Your task to perform on an android device: turn notification dots on Image 0: 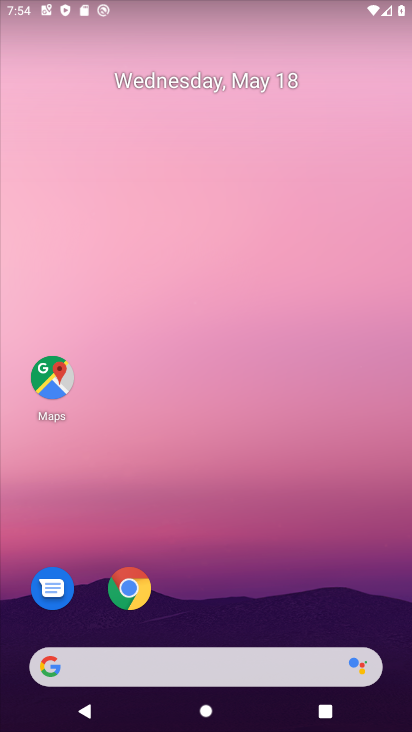
Step 0: drag from (255, 556) to (245, 23)
Your task to perform on an android device: turn notification dots on Image 1: 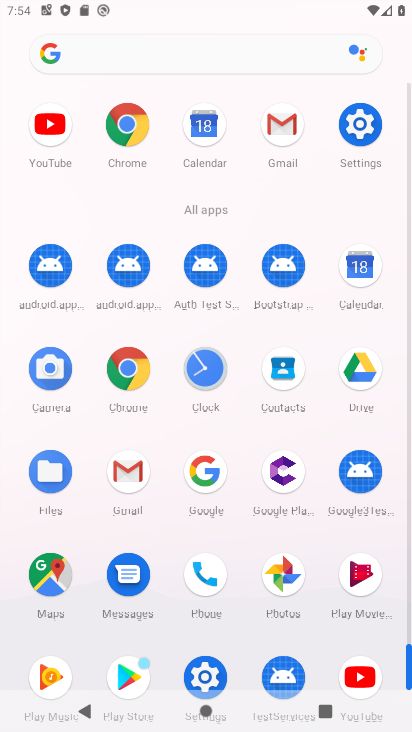
Step 1: drag from (7, 529) to (0, 258)
Your task to perform on an android device: turn notification dots on Image 2: 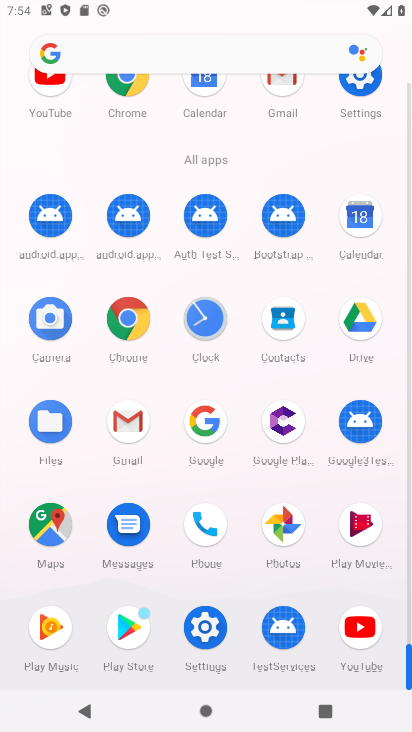
Step 2: click (206, 626)
Your task to perform on an android device: turn notification dots on Image 3: 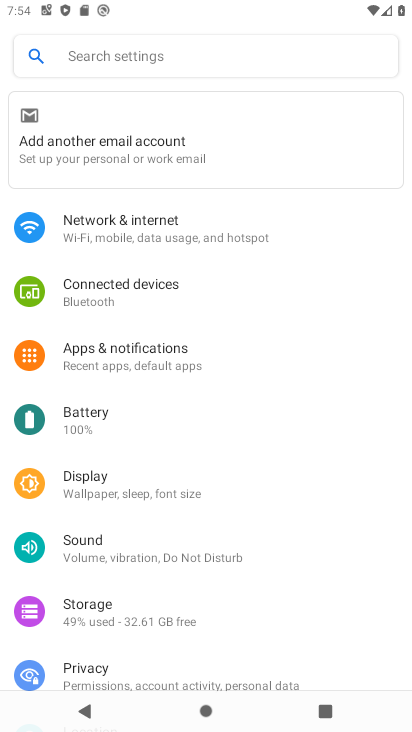
Step 3: drag from (241, 584) to (269, 198)
Your task to perform on an android device: turn notification dots on Image 4: 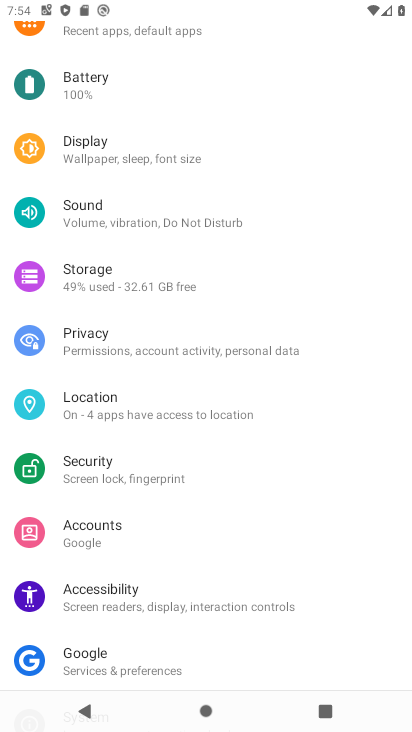
Step 4: drag from (245, 118) to (214, 467)
Your task to perform on an android device: turn notification dots on Image 5: 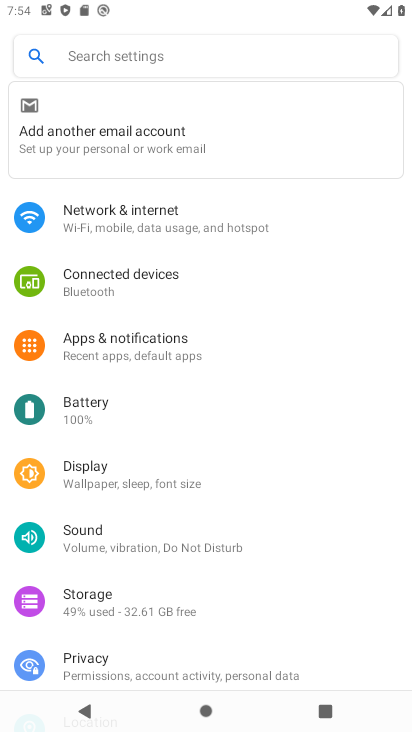
Step 5: click (141, 356)
Your task to perform on an android device: turn notification dots on Image 6: 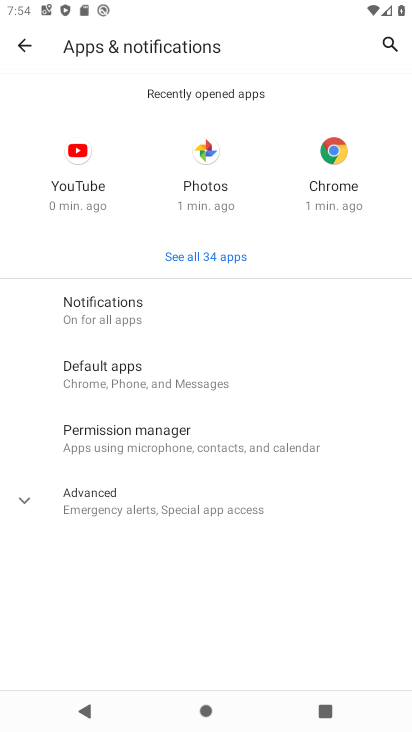
Step 6: click (34, 497)
Your task to perform on an android device: turn notification dots on Image 7: 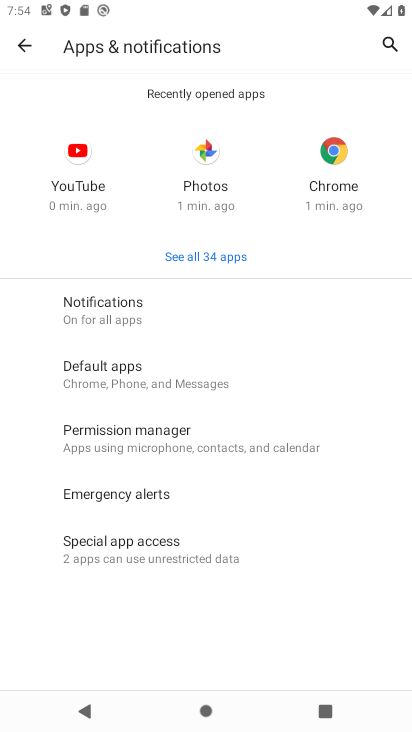
Step 7: click (148, 310)
Your task to perform on an android device: turn notification dots on Image 8: 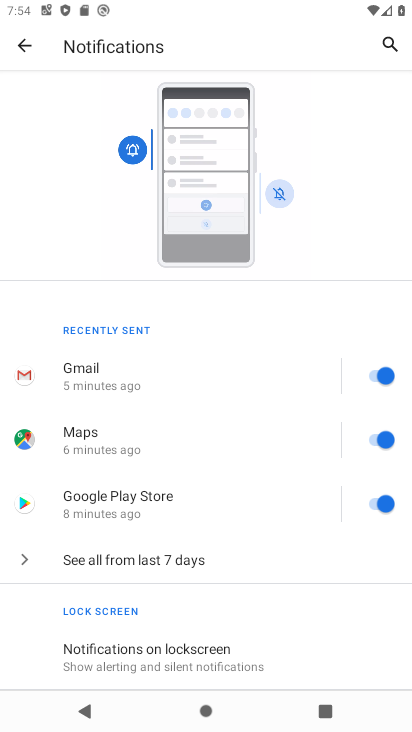
Step 8: drag from (272, 551) to (299, 218)
Your task to perform on an android device: turn notification dots on Image 9: 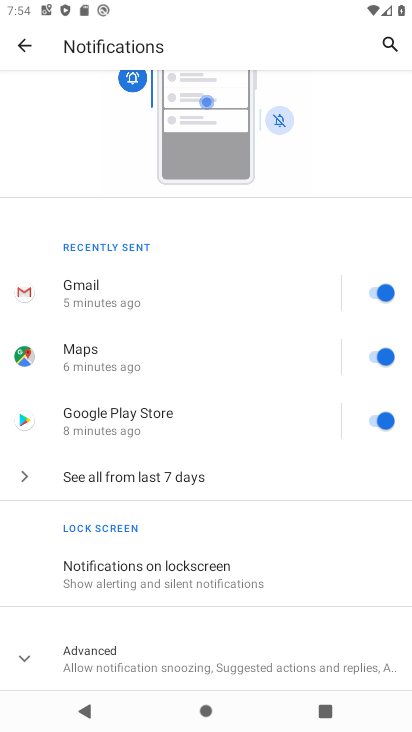
Step 9: click (87, 656)
Your task to perform on an android device: turn notification dots on Image 10: 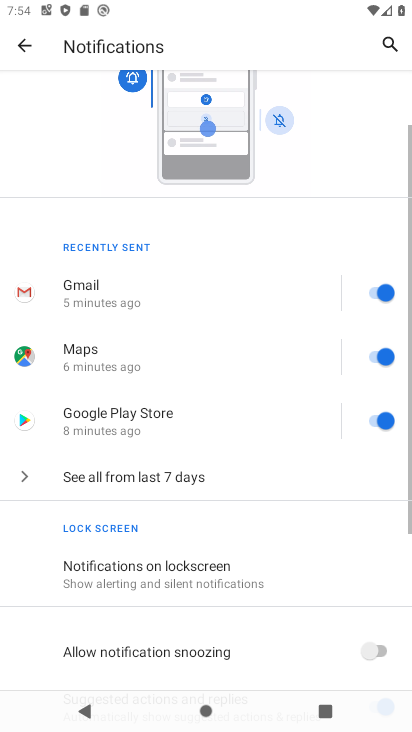
Step 10: task complete